Your task to perform on an android device: Open network settings Image 0: 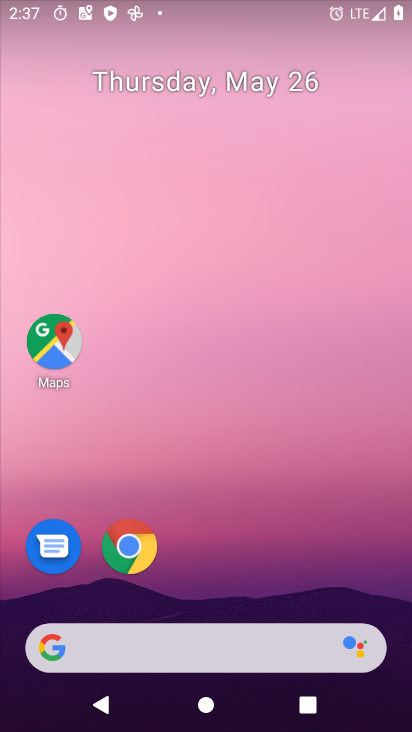
Step 0: drag from (198, 591) to (300, 94)
Your task to perform on an android device: Open network settings Image 1: 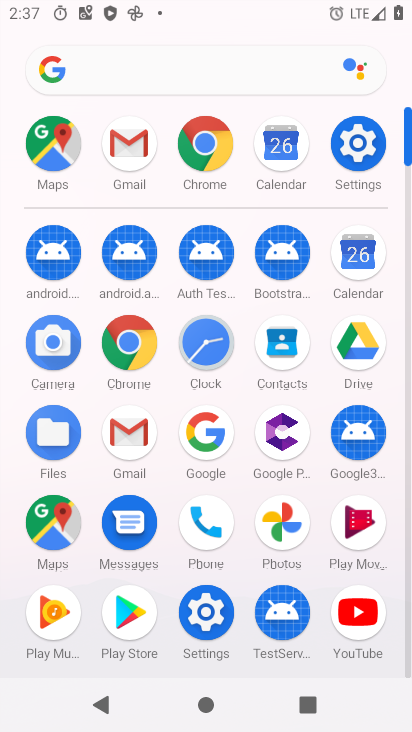
Step 1: click (359, 143)
Your task to perform on an android device: Open network settings Image 2: 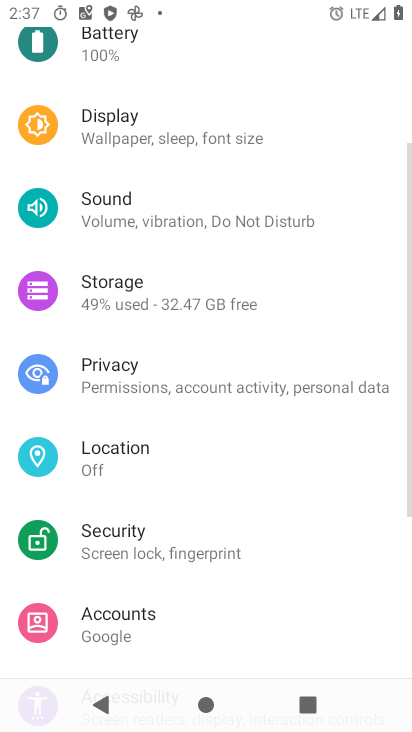
Step 2: drag from (209, 126) to (285, 677)
Your task to perform on an android device: Open network settings Image 3: 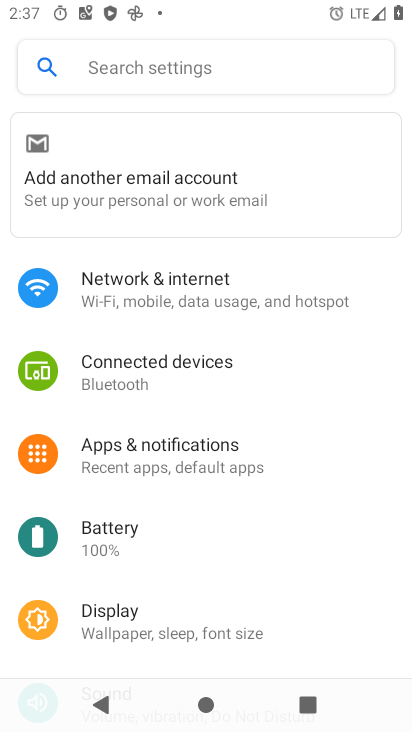
Step 3: click (164, 293)
Your task to perform on an android device: Open network settings Image 4: 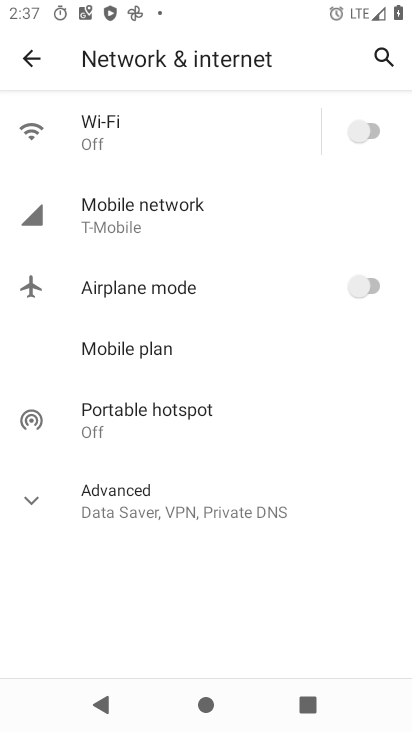
Step 4: click (150, 207)
Your task to perform on an android device: Open network settings Image 5: 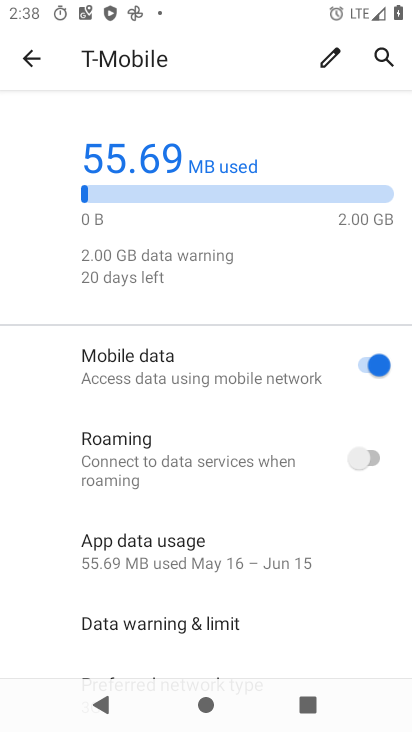
Step 5: task complete